Your task to perform on an android device: Open the phone app and click the voicemail tab. Image 0: 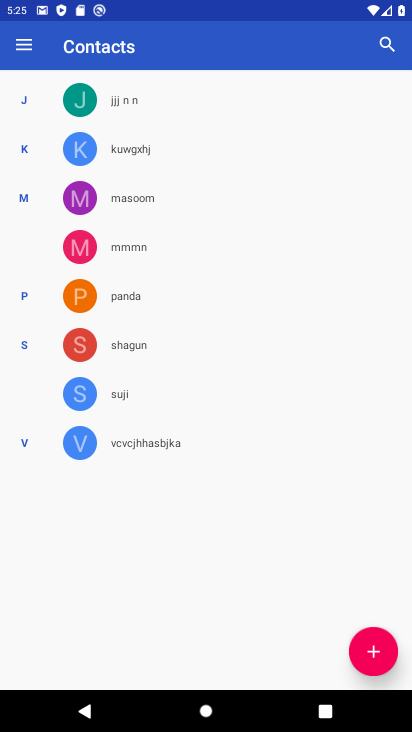
Step 0: press home button
Your task to perform on an android device: Open the phone app and click the voicemail tab. Image 1: 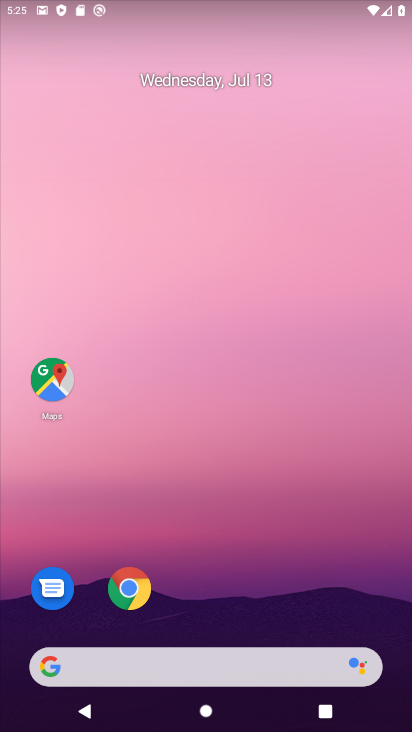
Step 1: drag from (213, 276) to (220, 80)
Your task to perform on an android device: Open the phone app and click the voicemail tab. Image 2: 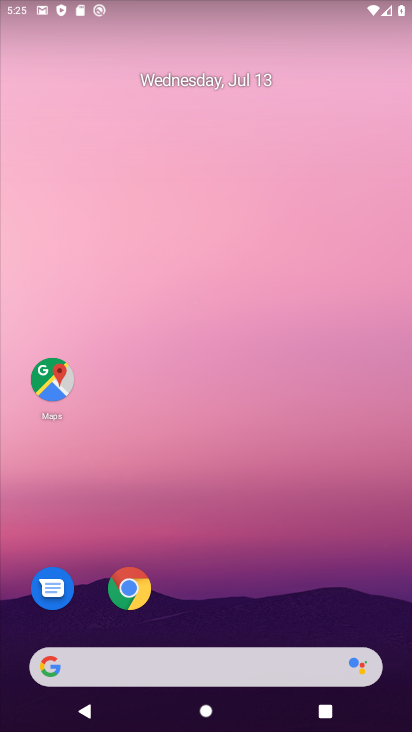
Step 2: drag from (218, 431) to (217, 9)
Your task to perform on an android device: Open the phone app and click the voicemail tab. Image 3: 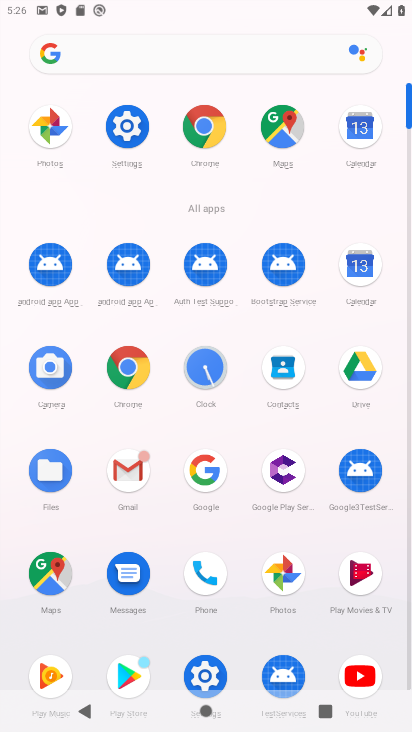
Step 3: click (199, 566)
Your task to perform on an android device: Open the phone app and click the voicemail tab. Image 4: 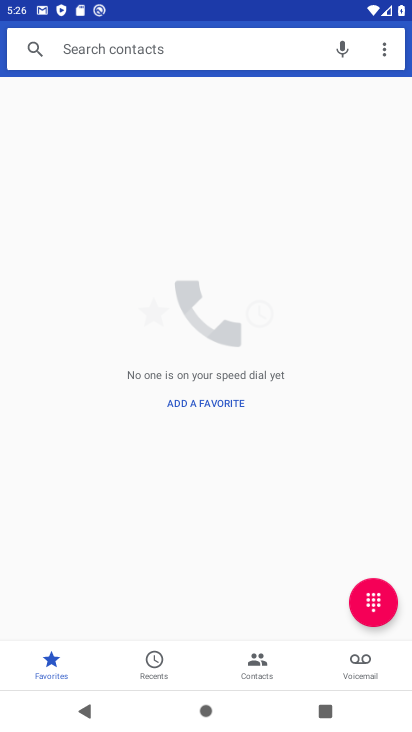
Step 4: click (355, 663)
Your task to perform on an android device: Open the phone app and click the voicemail tab. Image 5: 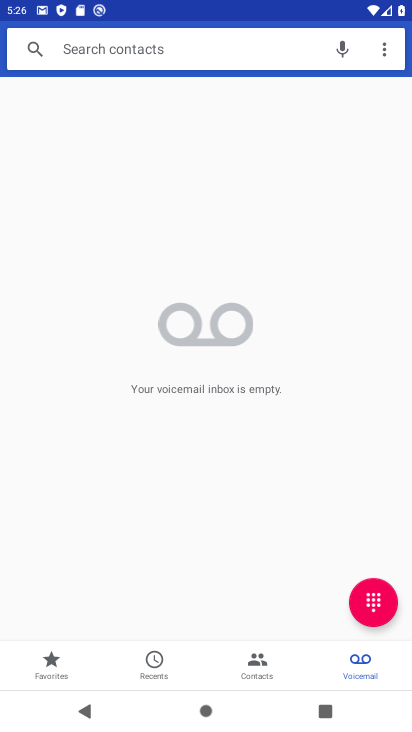
Step 5: task complete